Your task to perform on an android device: move an email to a new category in the gmail app Image 0: 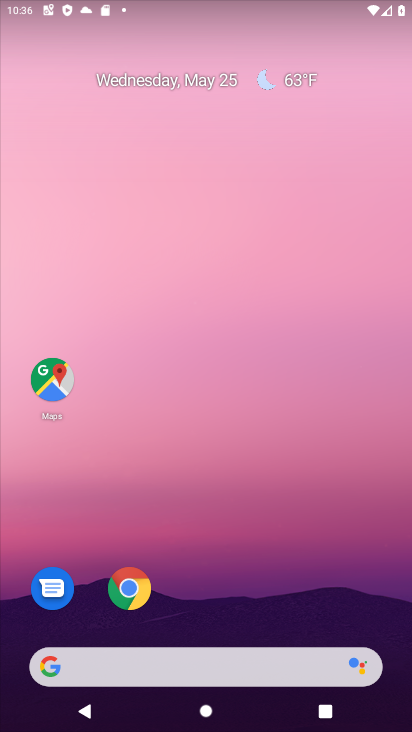
Step 0: drag from (270, 608) to (268, 0)
Your task to perform on an android device: move an email to a new category in the gmail app Image 1: 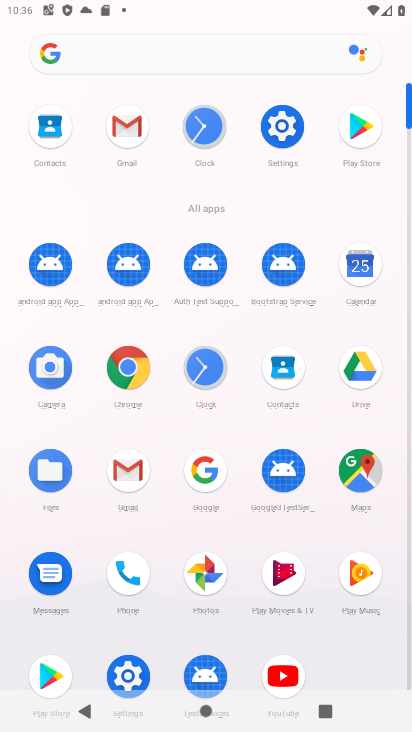
Step 1: click (130, 476)
Your task to perform on an android device: move an email to a new category in the gmail app Image 2: 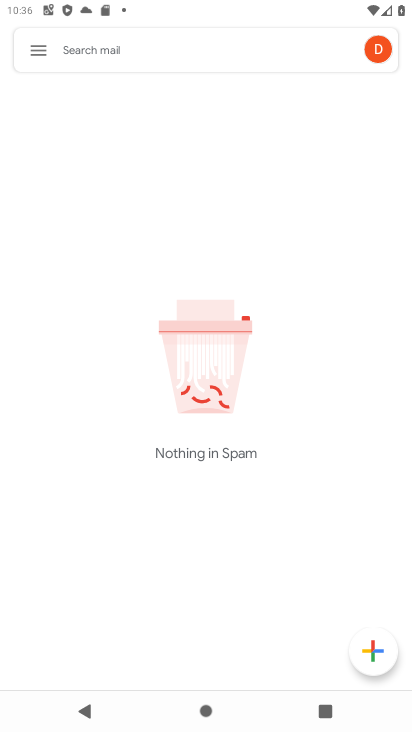
Step 2: click (50, 46)
Your task to perform on an android device: move an email to a new category in the gmail app Image 3: 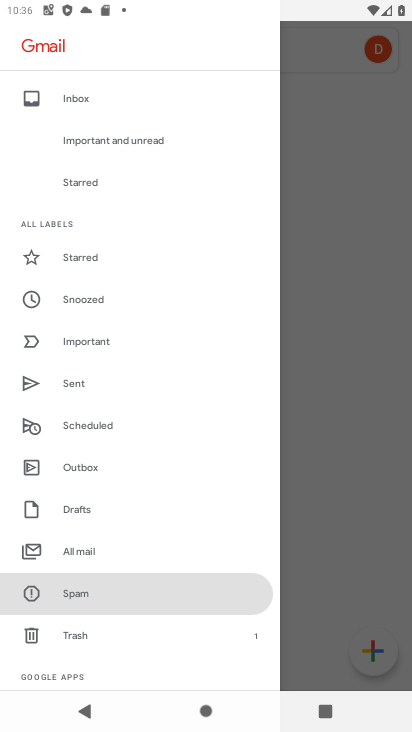
Step 3: drag from (167, 596) to (151, 304)
Your task to perform on an android device: move an email to a new category in the gmail app Image 4: 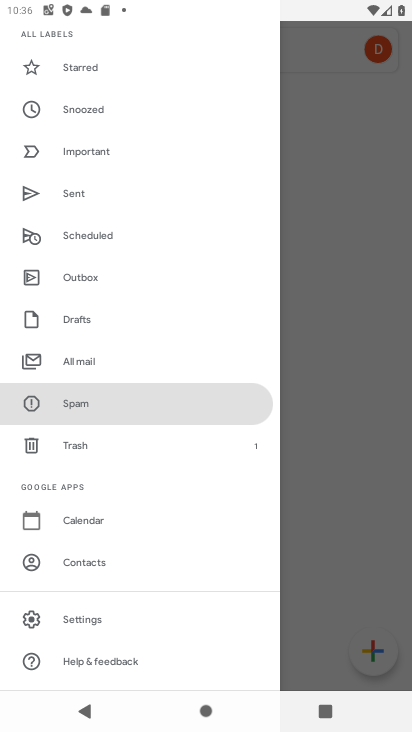
Step 4: click (126, 358)
Your task to perform on an android device: move an email to a new category in the gmail app Image 5: 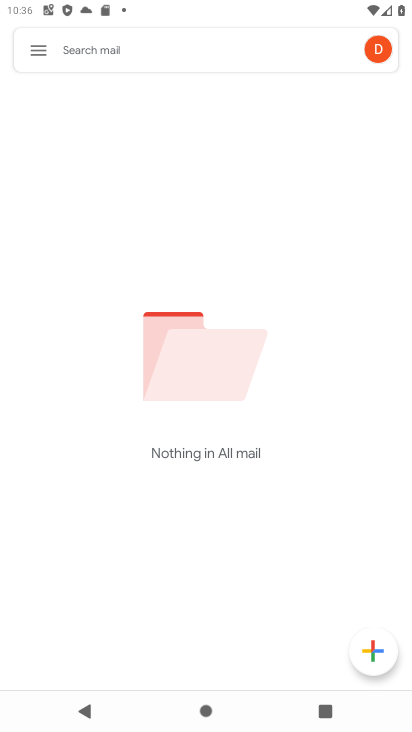
Step 5: task complete